Your task to perform on an android device: Go to CNN.com Image 0: 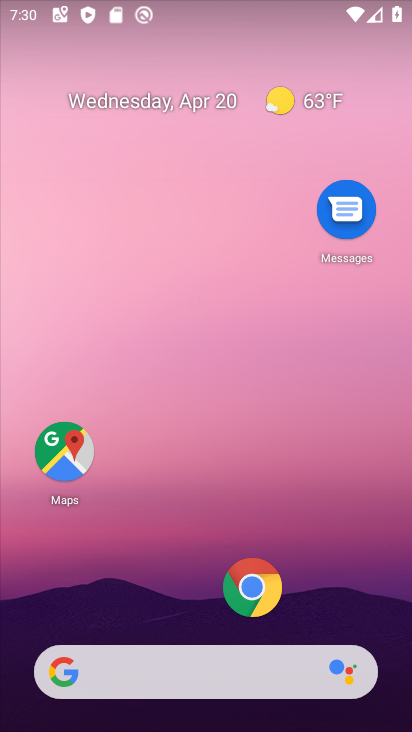
Step 0: drag from (222, 666) to (352, 213)
Your task to perform on an android device: Go to CNN.com Image 1: 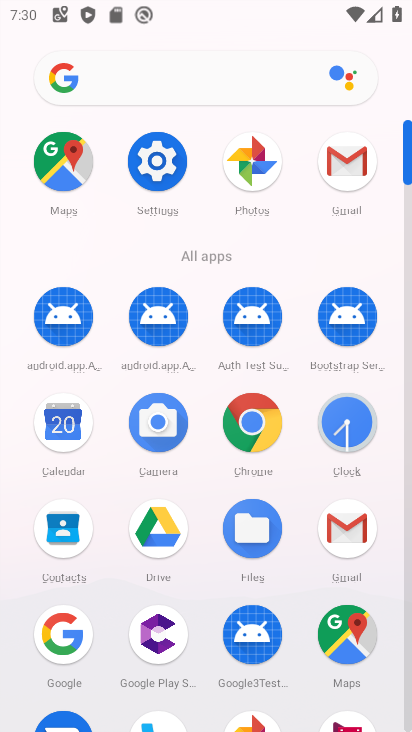
Step 1: click (247, 433)
Your task to perform on an android device: Go to CNN.com Image 2: 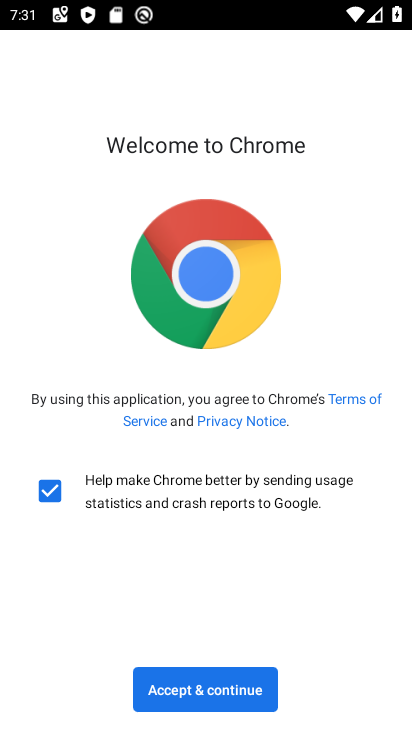
Step 2: click (213, 683)
Your task to perform on an android device: Go to CNN.com Image 3: 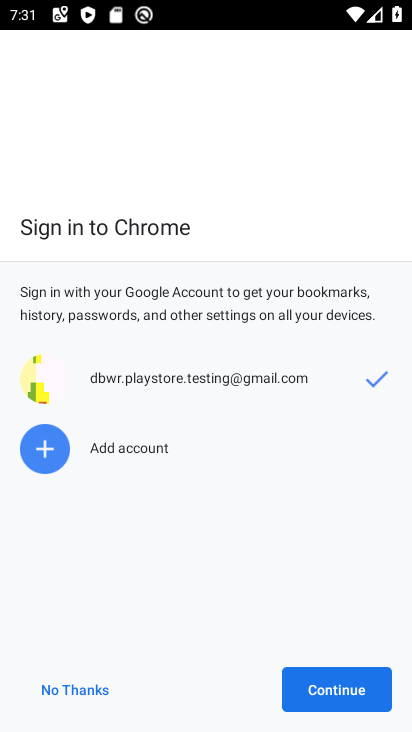
Step 3: click (346, 680)
Your task to perform on an android device: Go to CNN.com Image 4: 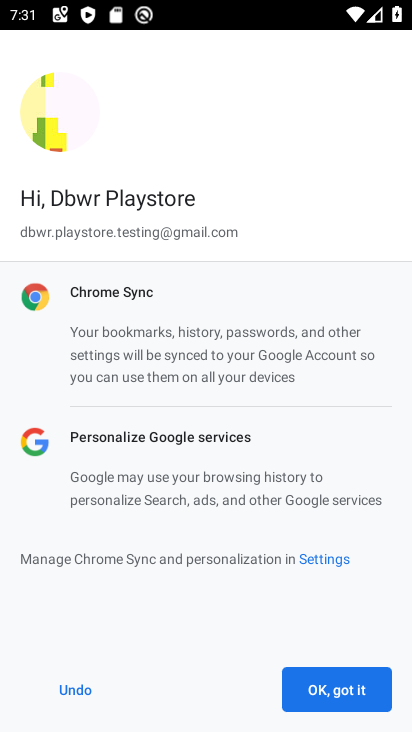
Step 4: click (342, 685)
Your task to perform on an android device: Go to CNN.com Image 5: 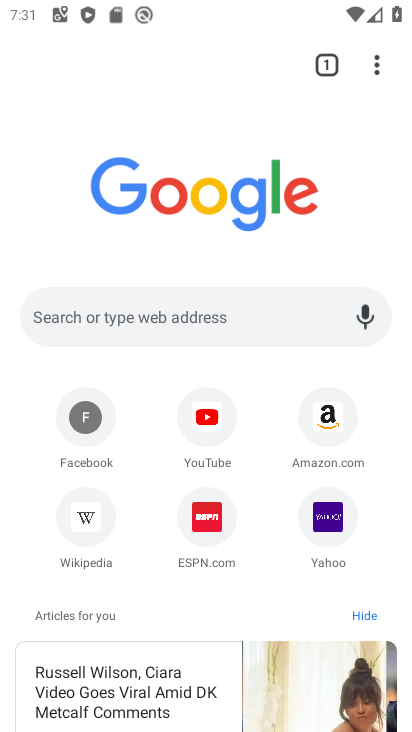
Step 5: click (144, 316)
Your task to perform on an android device: Go to CNN.com Image 6: 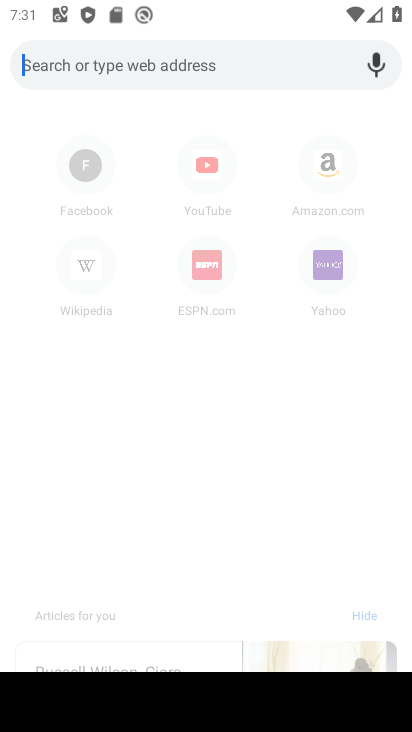
Step 6: type "cnn.com"
Your task to perform on an android device: Go to CNN.com Image 7: 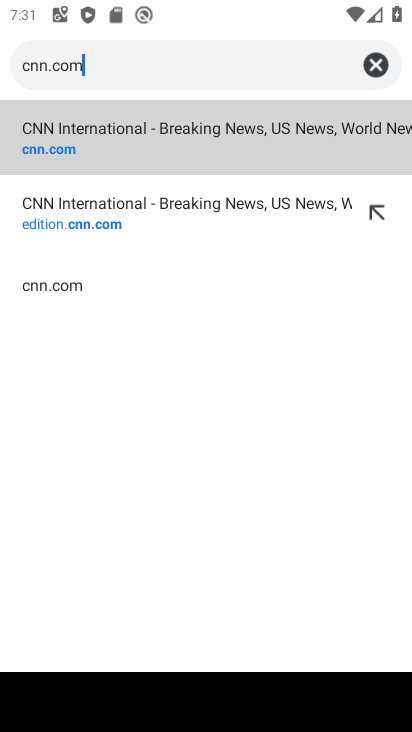
Step 7: click (56, 284)
Your task to perform on an android device: Go to CNN.com Image 8: 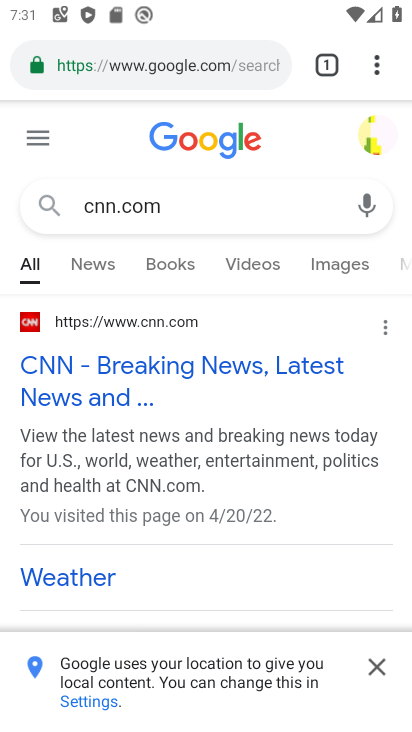
Step 8: click (208, 367)
Your task to perform on an android device: Go to CNN.com Image 9: 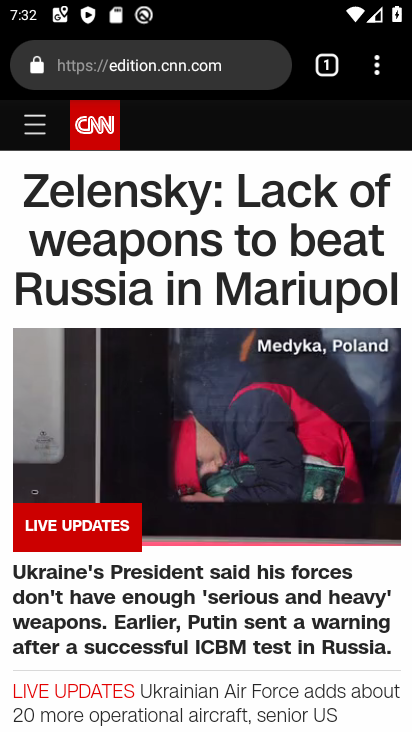
Step 9: task complete